Your task to perform on an android device: Open ESPN.com Image 0: 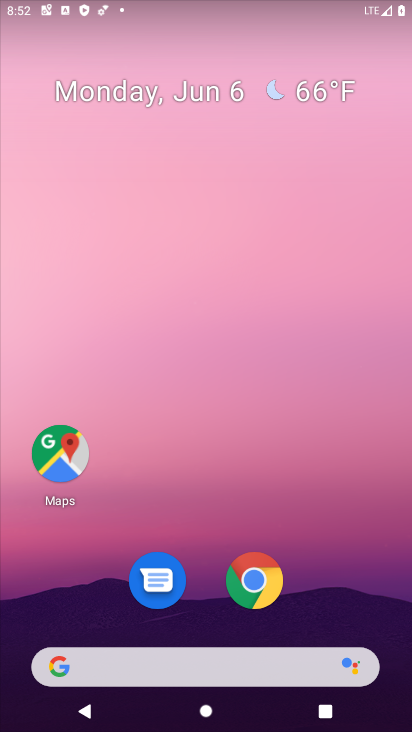
Step 0: drag from (297, 548) to (259, 21)
Your task to perform on an android device: Open ESPN.com Image 1: 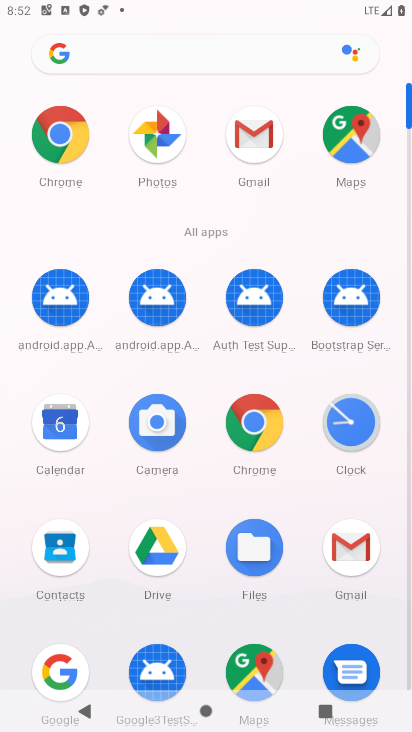
Step 1: click (73, 139)
Your task to perform on an android device: Open ESPN.com Image 2: 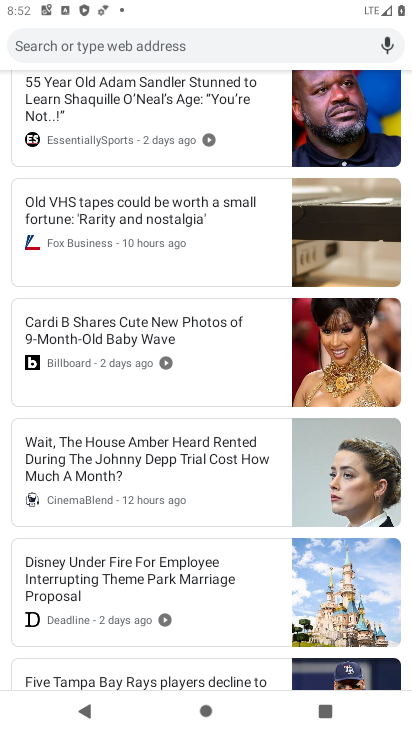
Step 2: drag from (82, 112) to (119, 643)
Your task to perform on an android device: Open ESPN.com Image 3: 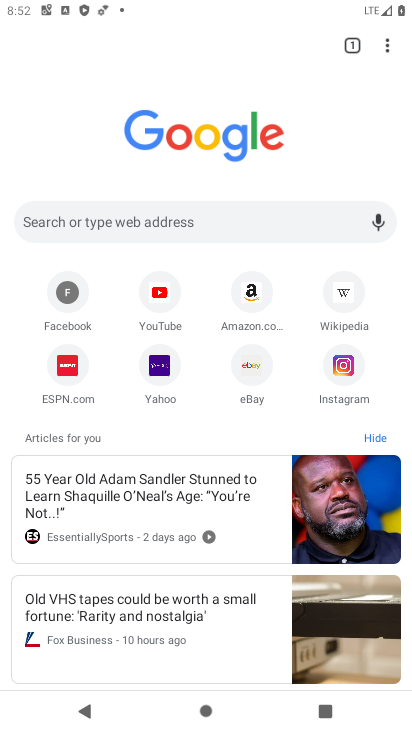
Step 3: click (60, 384)
Your task to perform on an android device: Open ESPN.com Image 4: 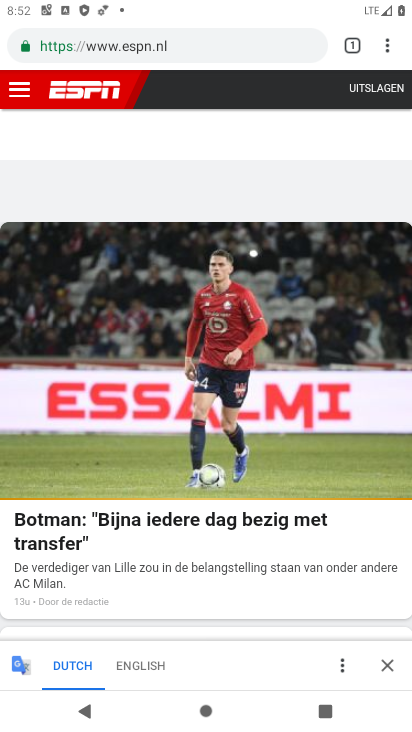
Step 4: task complete